Your task to perform on an android device: Open the map Image 0: 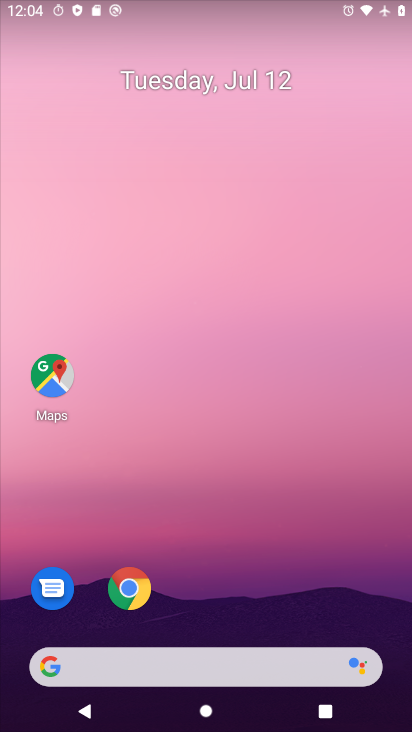
Step 0: click (60, 378)
Your task to perform on an android device: Open the map Image 1: 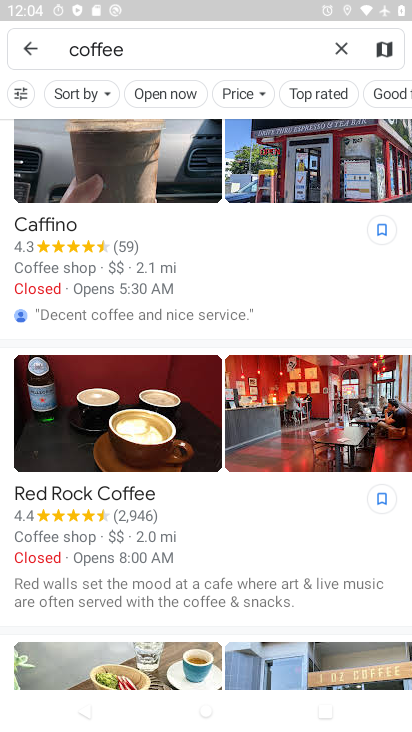
Step 1: click (28, 50)
Your task to perform on an android device: Open the map Image 2: 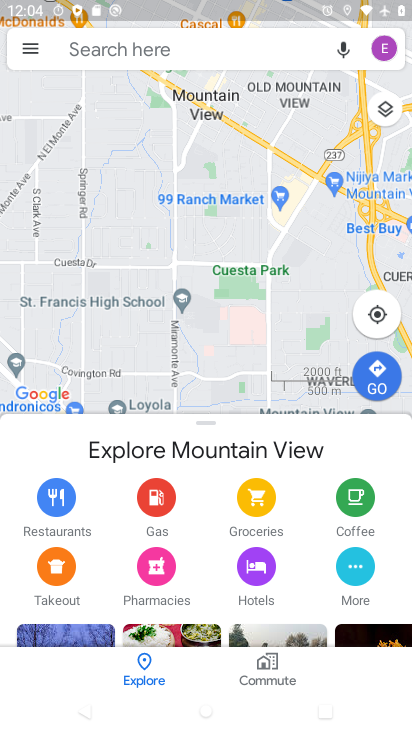
Step 2: task complete